Your task to perform on an android device: What's on my calendar today? Image 0: 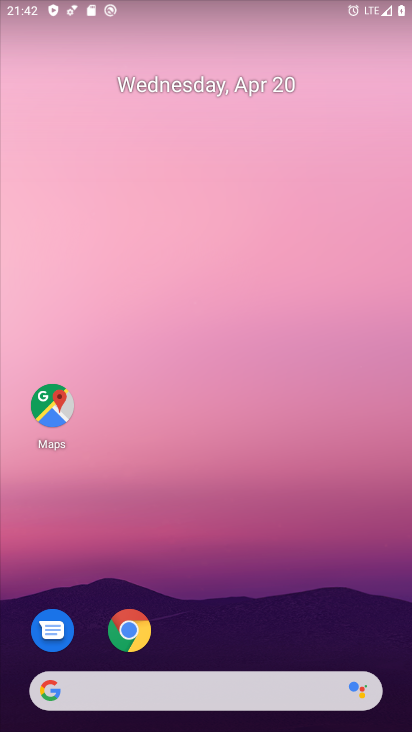
Step 0: drag from (287, 640) to (213, 184)
Your task to perform on an android device: What's on my calendar today? Image 1: 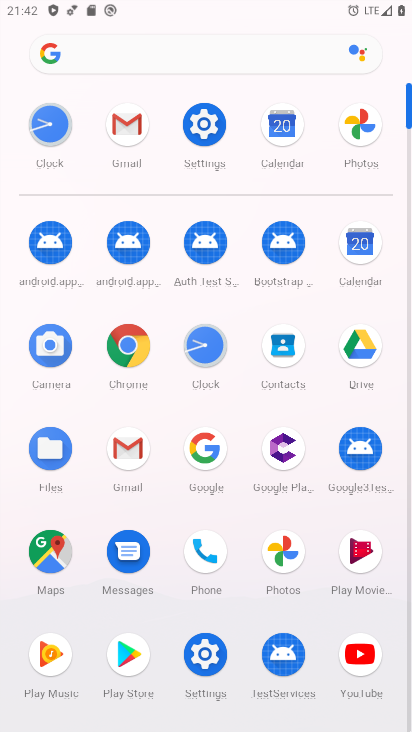
Step 1: click (285, 121)
Your task to perform on an android device: What's on my calendar today? Image 2: 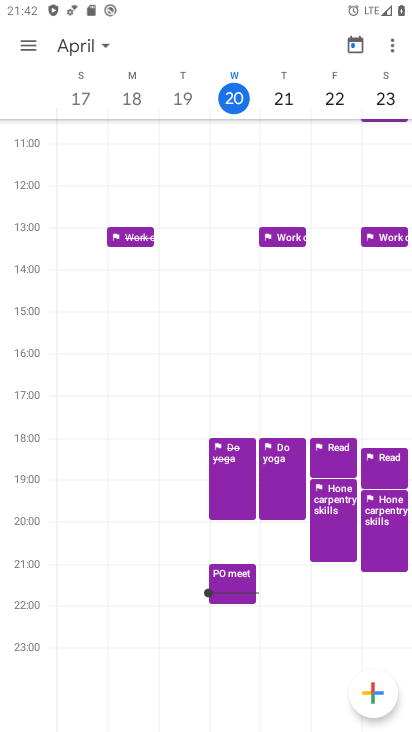
Step 2: click (26, 48)
Your task to perform on an android device: What's on my calendar today? Image 3: 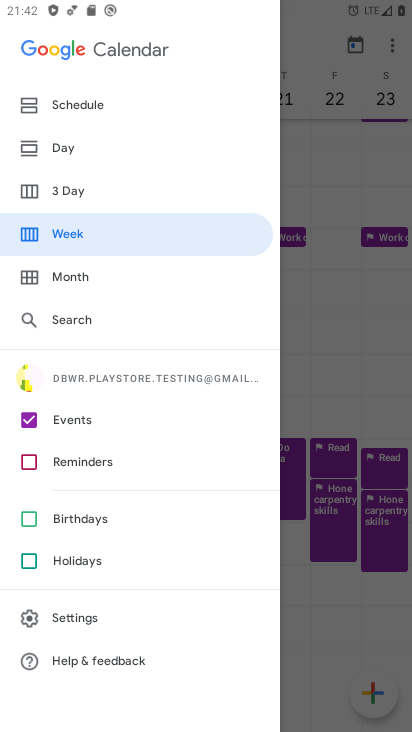
Step 3: click (64, 143)
Your task to perform on an android device: What's on my calendar today? Image 4: 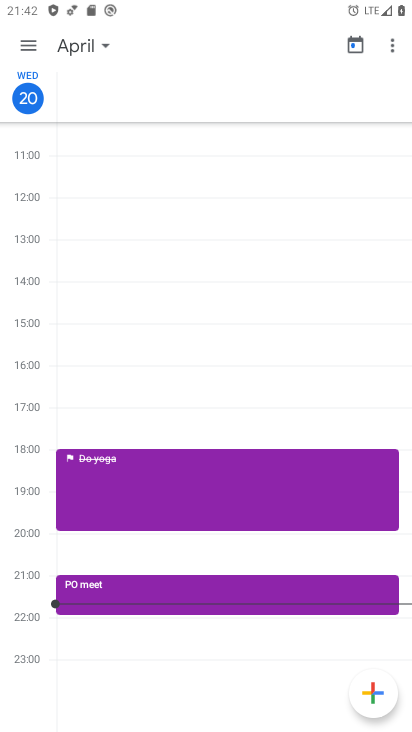
Step 4: task complete